Your task to perform on an android device: see creations saved in the google photos Image 0: 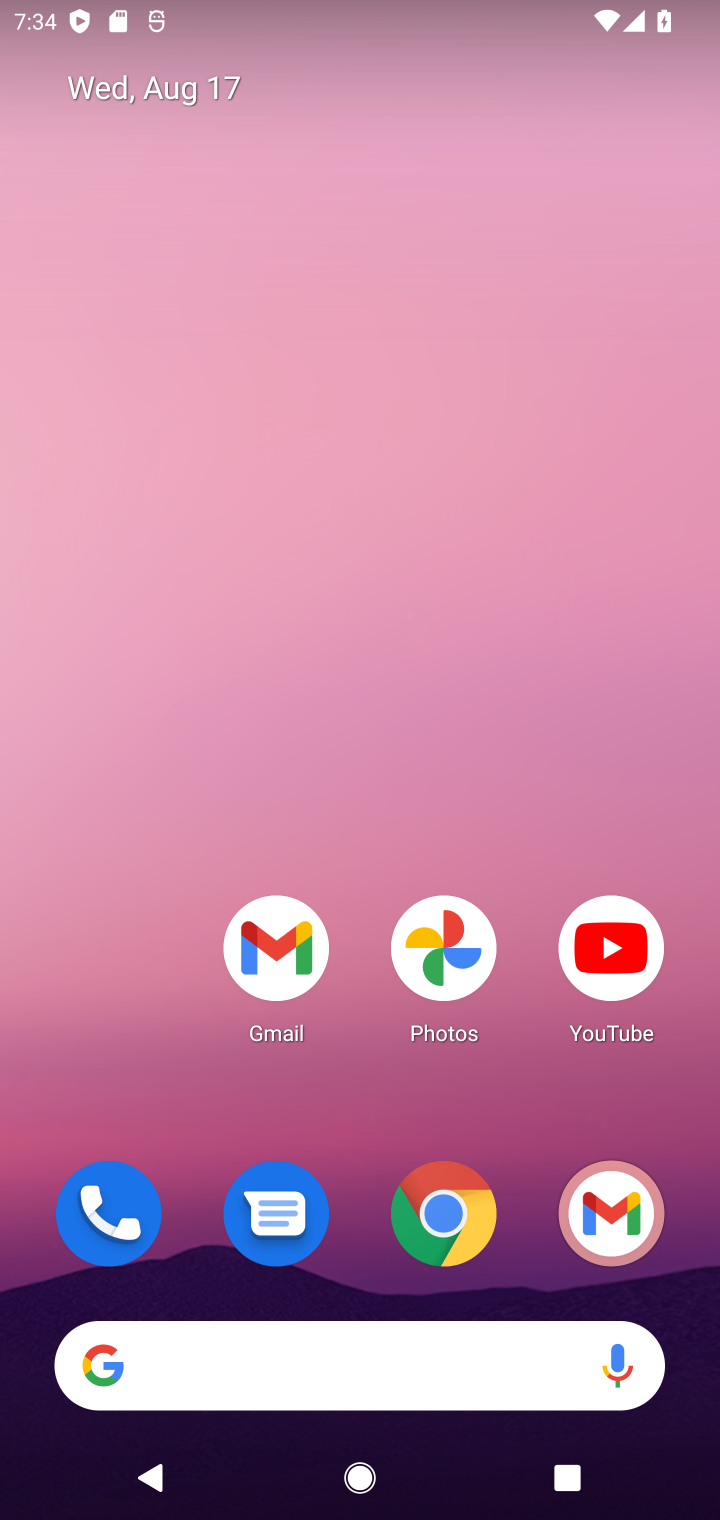
Step 0: drag from (355, 1327) to (411, 306)
Your task to perform on an android device: see creations saved in the google photos Image 1: 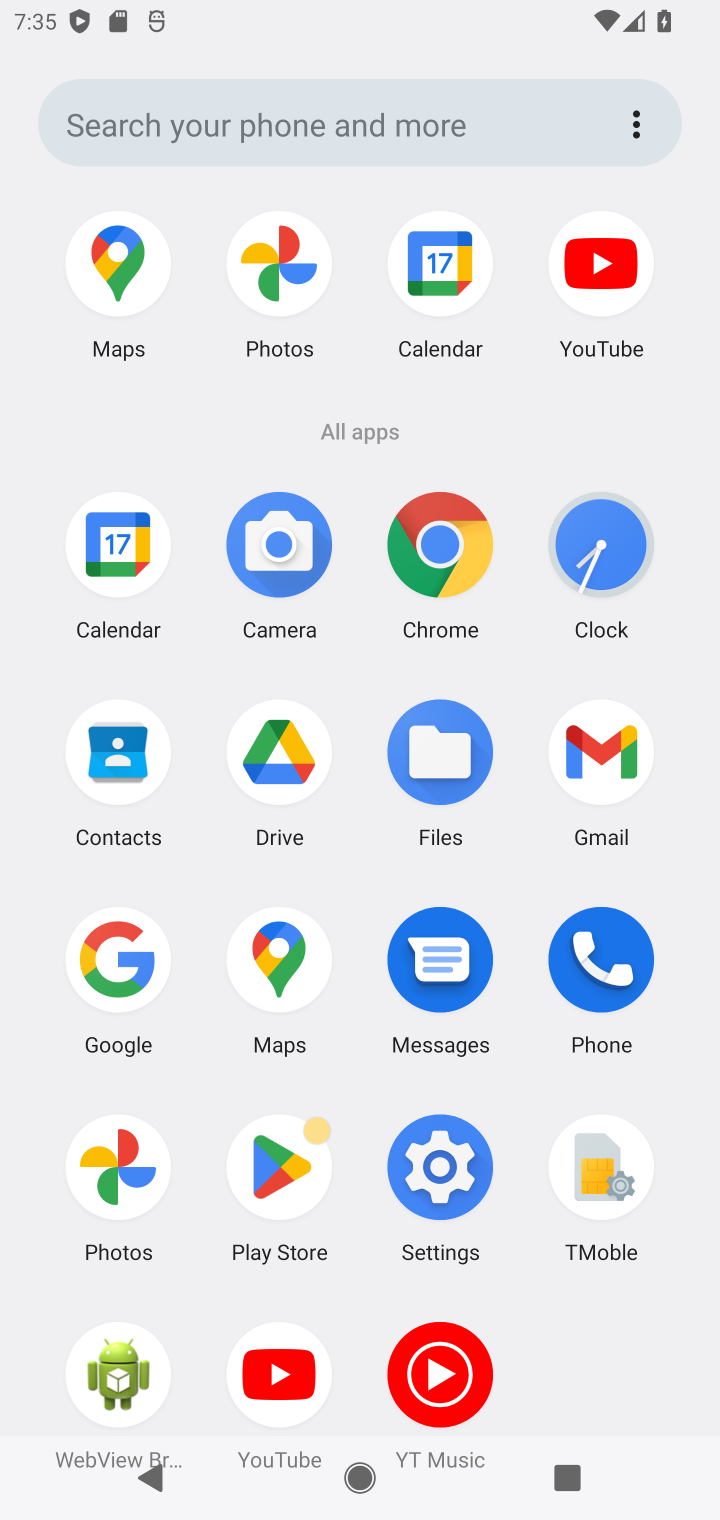
Step 1: click (322, 308)
Your task to perform on an android device: see creations saved in the google photos Image 2: 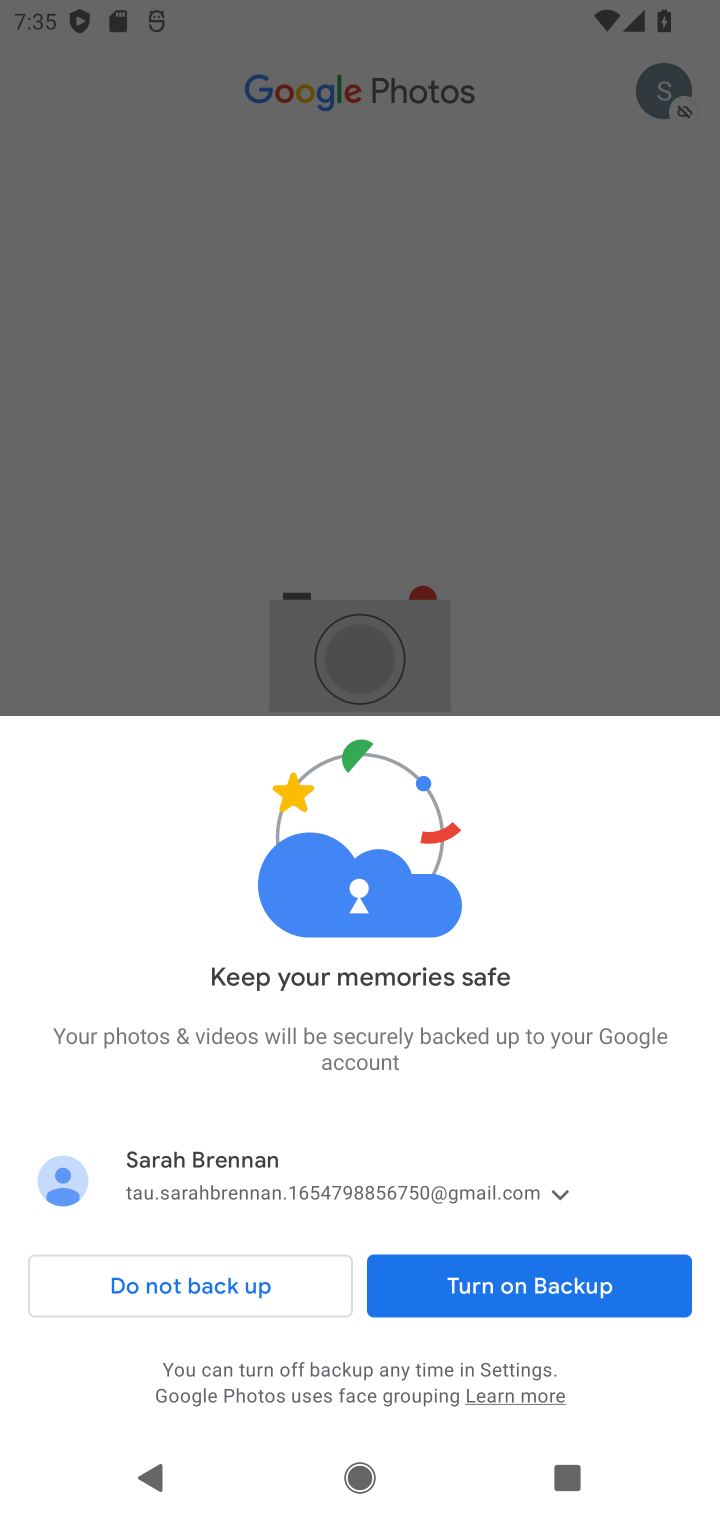
Step 2: press home button
Your task to perform on an android device: see creations saved in the google photos Image 3: 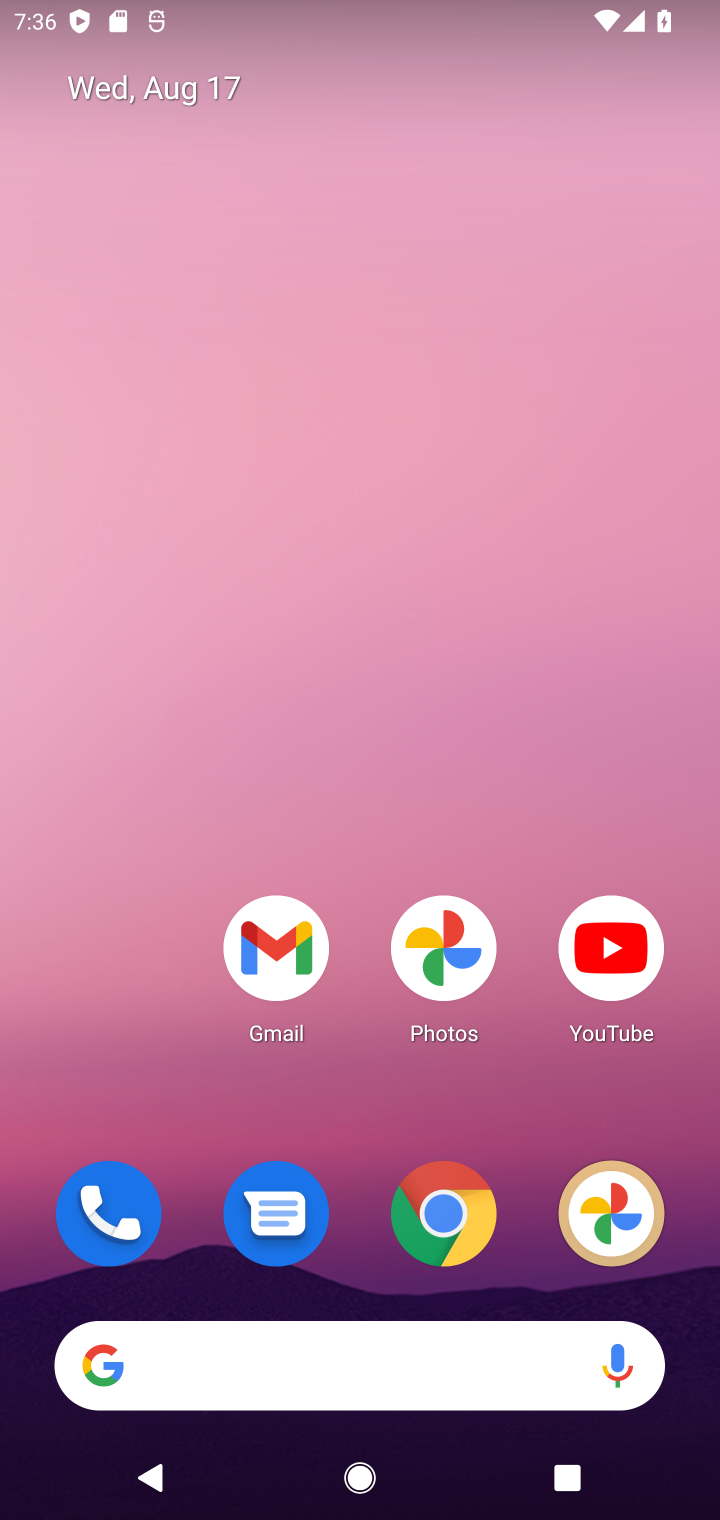
Step 3: click (581, 1212)
Your task to perform on an android device: see creations saved in the google photos Image 4: 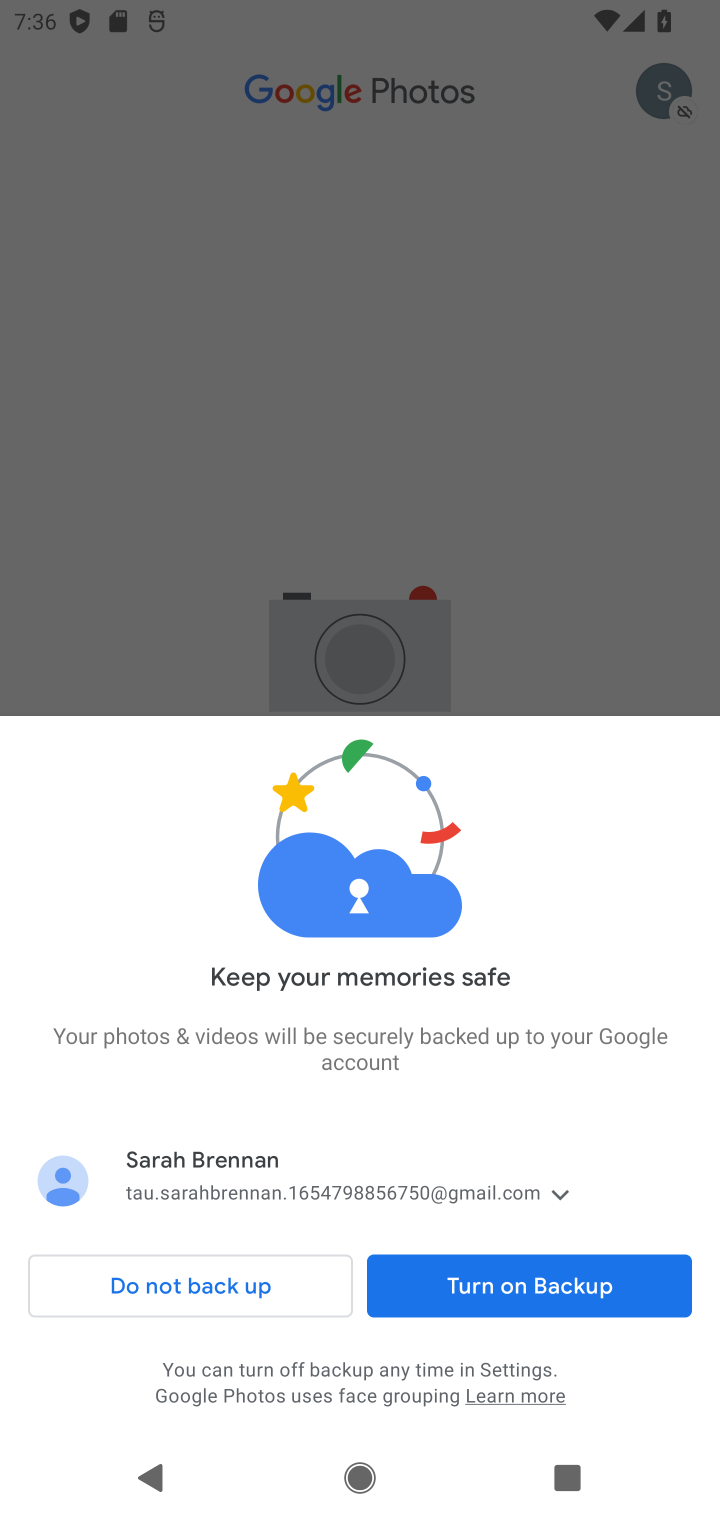
Step 4: task complete